Your task to perform on an android device: Find coffee shops on Maps Image 0: 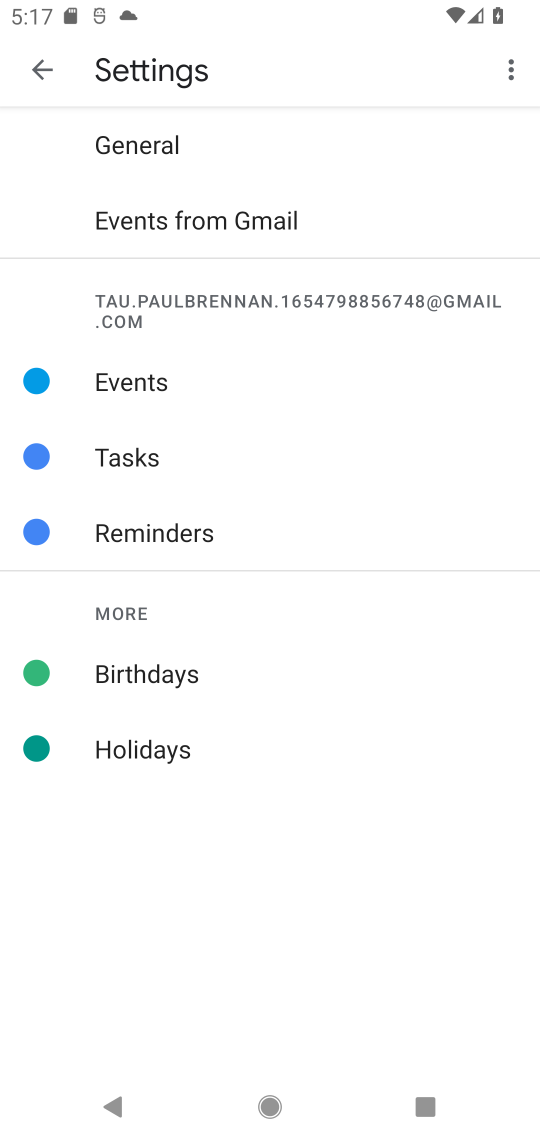
Step 0: press home button
Your task to perform on an android device: Find coffee shops on Maps Image 1: 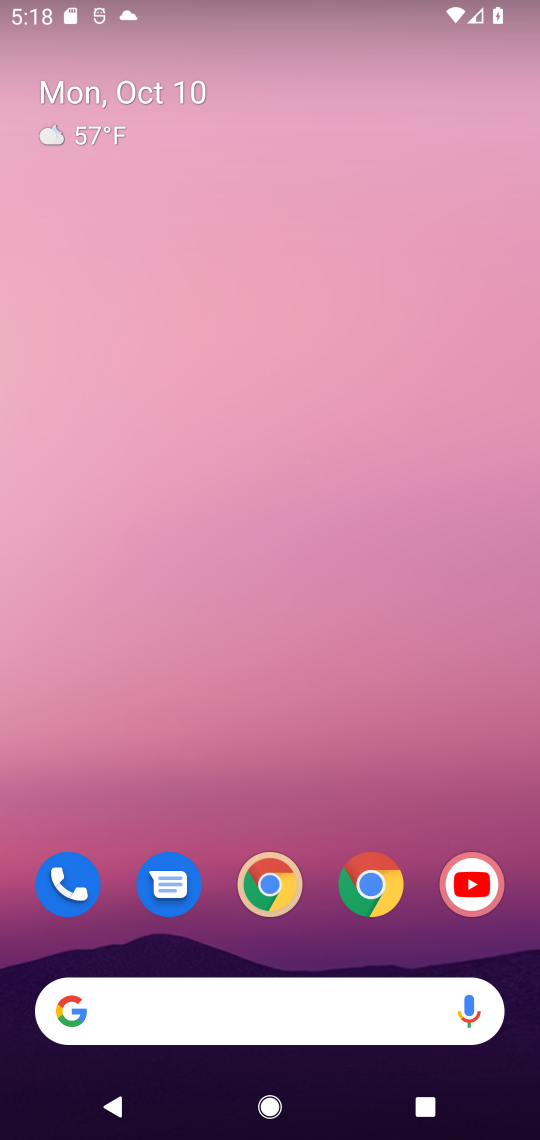
Step 1: drag from (422, 924) to (408, 101)
Your task to perform on an android device: Find coffee shops on Maps Image 2: 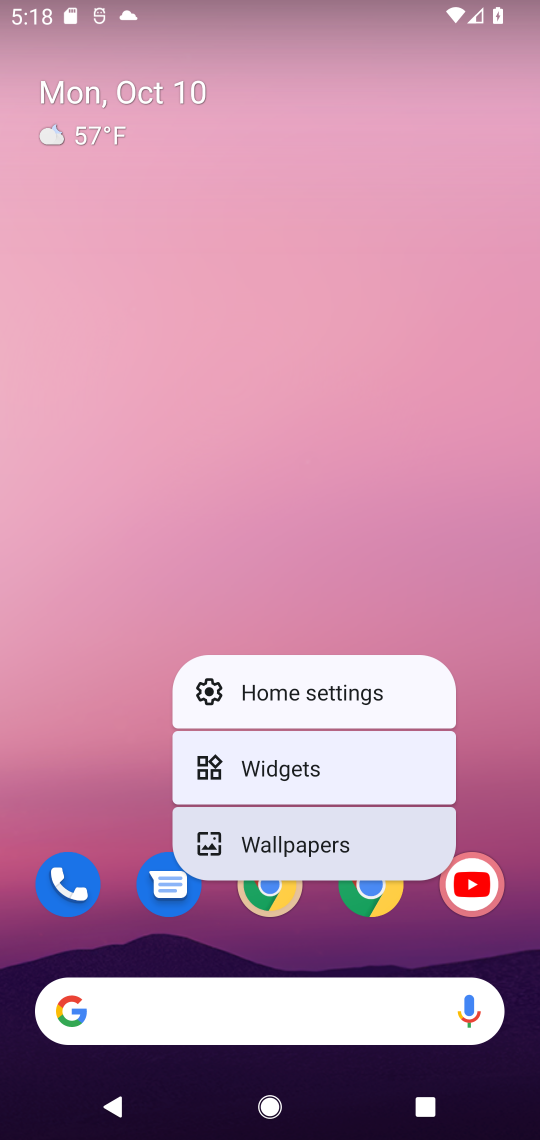
Step 2: drag from (528, 782) to (489, 156)
Your task to perform on an android device: Find coffee shops on Maps Image 3: 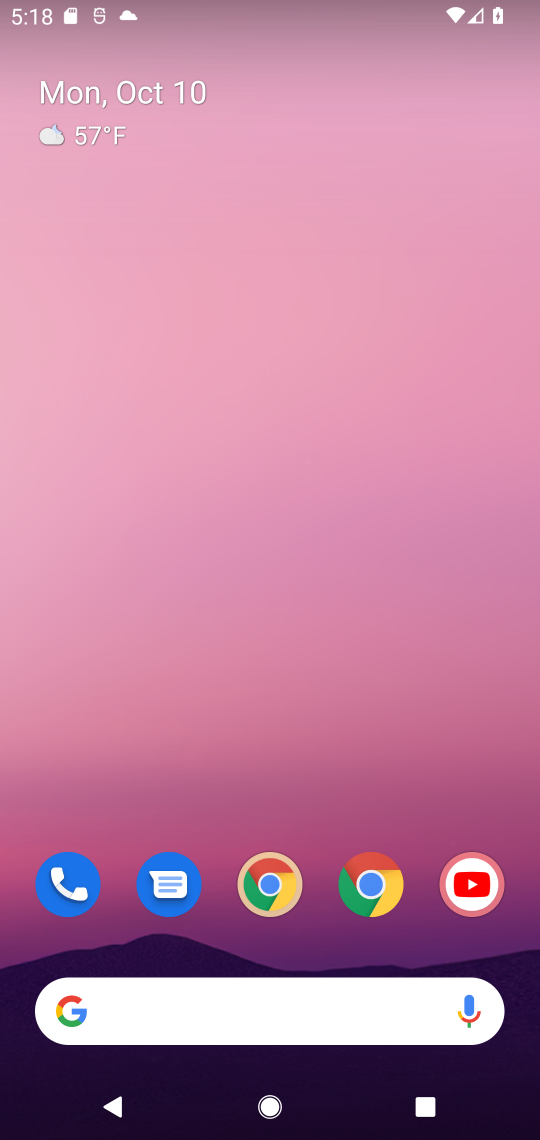
Step 3: drag from (493, 786) to (432, 16)
Your task to perform on an android device: Find coffee shops on Maps Image 4: 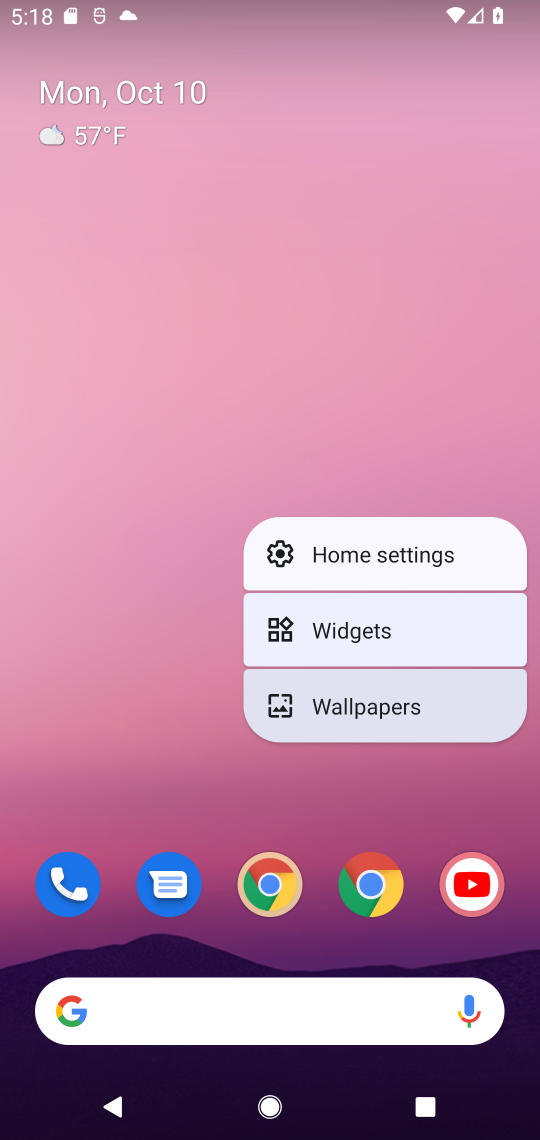
Step 4: click (38, 564)
Your task to perform on an android device: Find coffee shops on Maps Image 5: 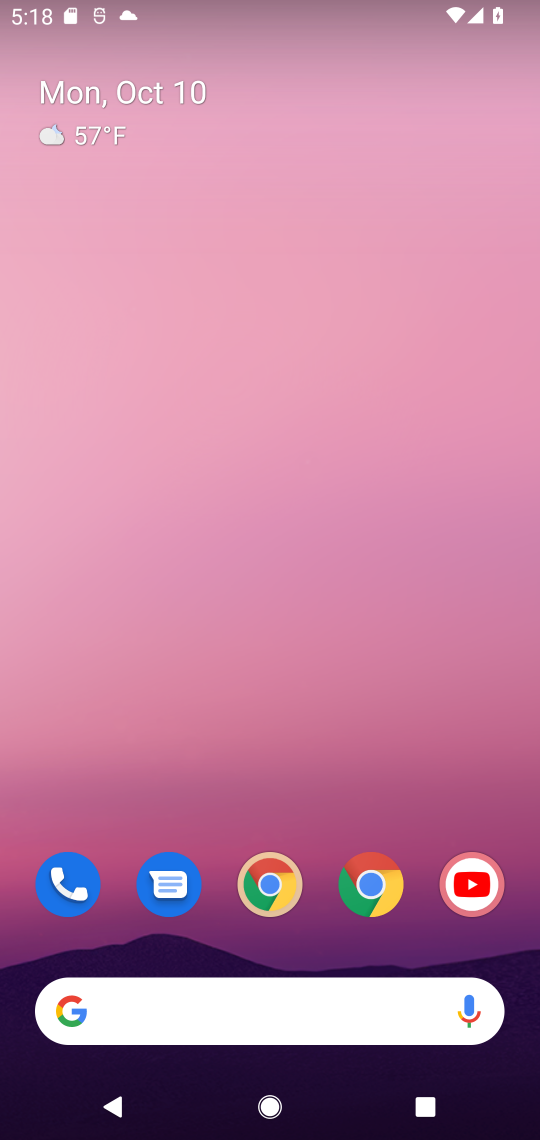
Step 5: click (510, 818)
Your task to perform on an android device: Find coffee shops on Maps Image 6: 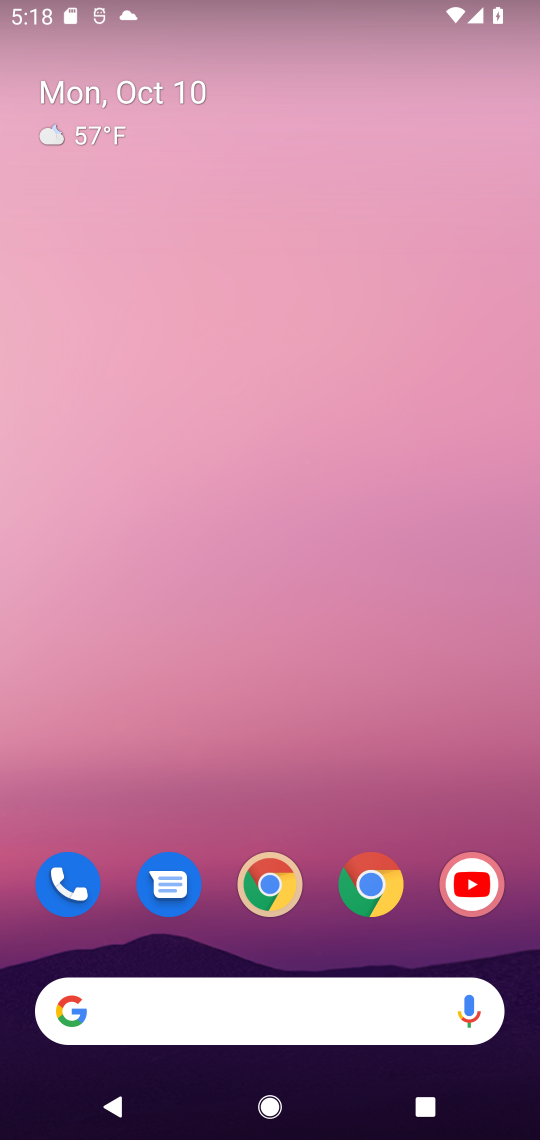
Step 6: drag from (510, 818) to (488, 101)
Your task to perform on an android device: Find coffee shops on Maps Image 7: 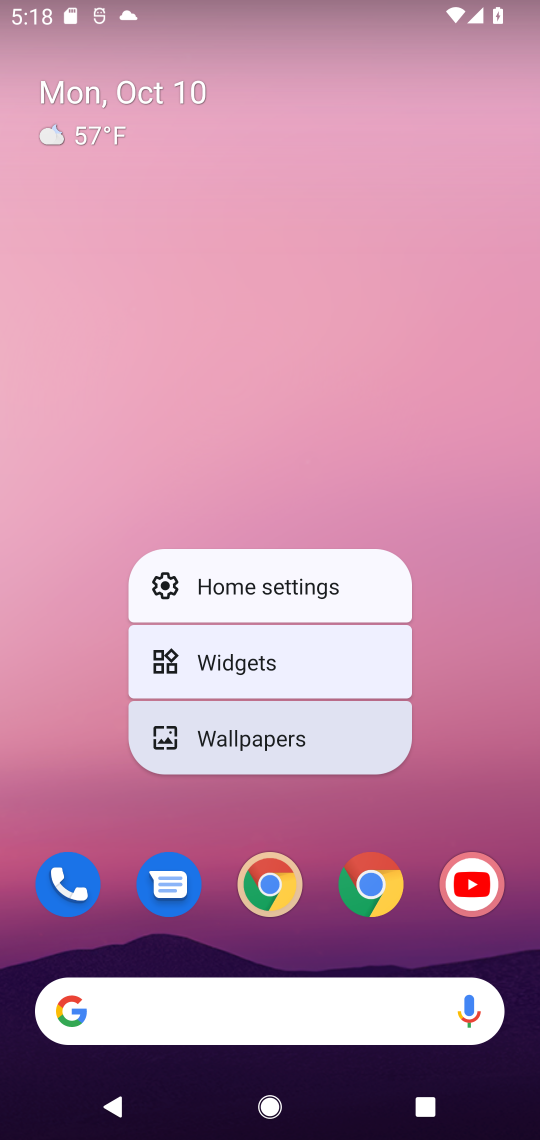
Step 7: click (486, 487)
Your task to perform on an android device: Find coffee shops on Maps Image 8: 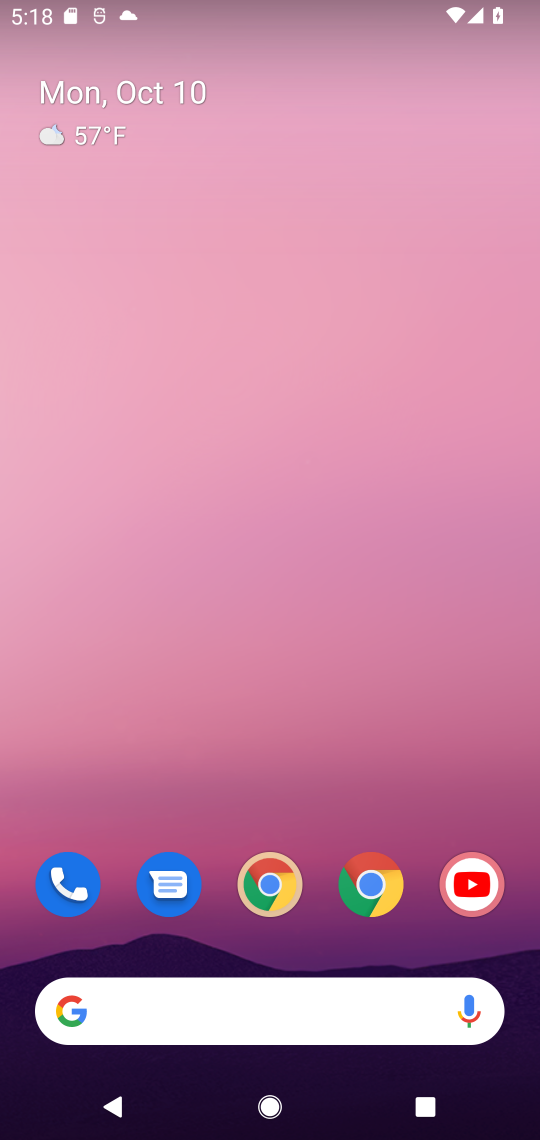
Step 8: drag from (520, 745) to (409, 9)
Your task to perform on an android device: Find coffee shops on Maps Image 9: 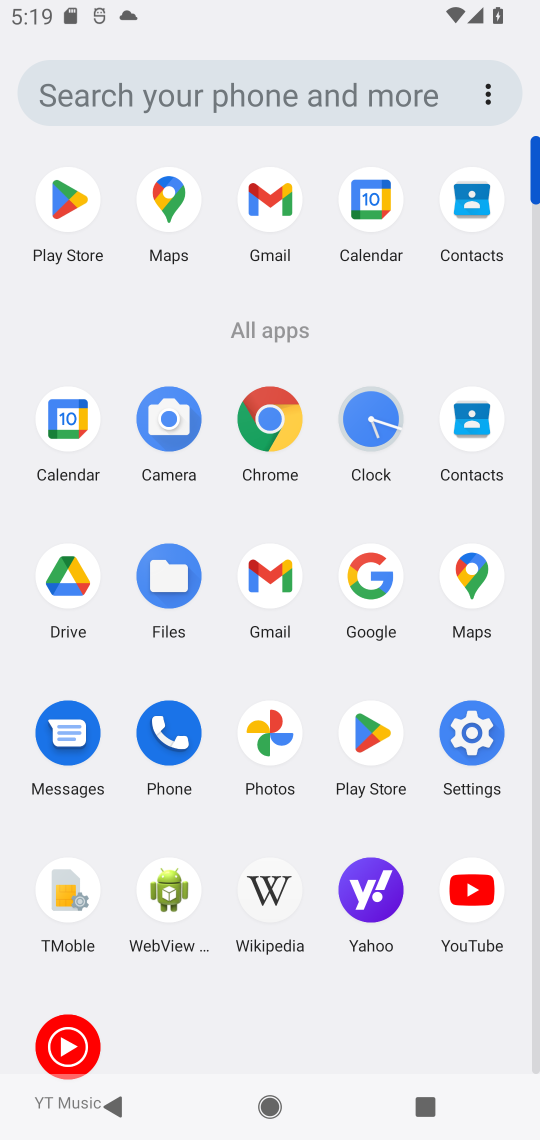
Step 9: click (156, 206)
Your task to perform on an android device: Find coffee shops on Maps Image 10: 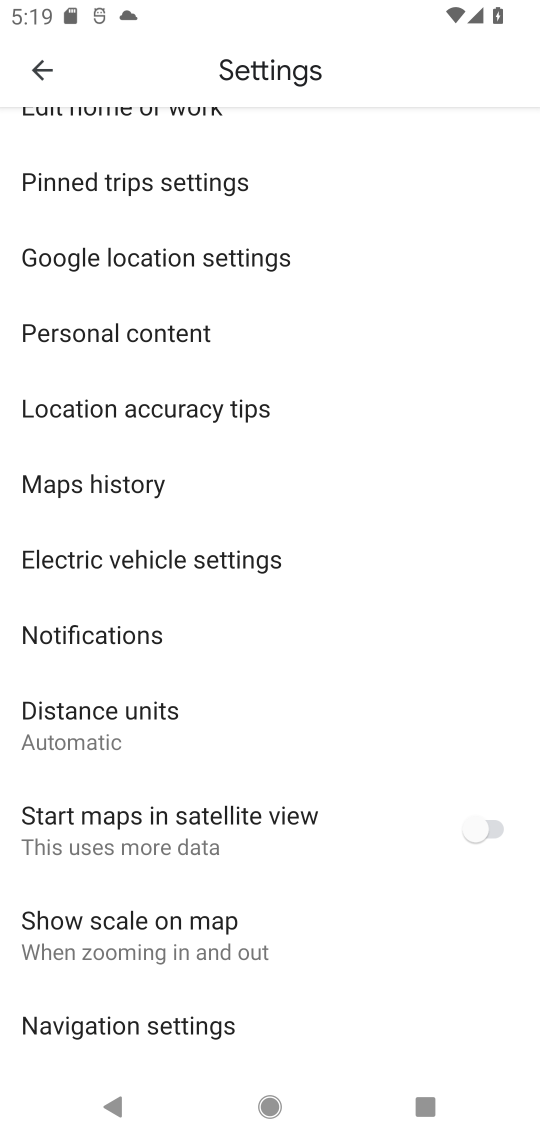
Step 10: click (27, 78)
Your task to perform on an android device: Find coffee shops on Maps Image 11: 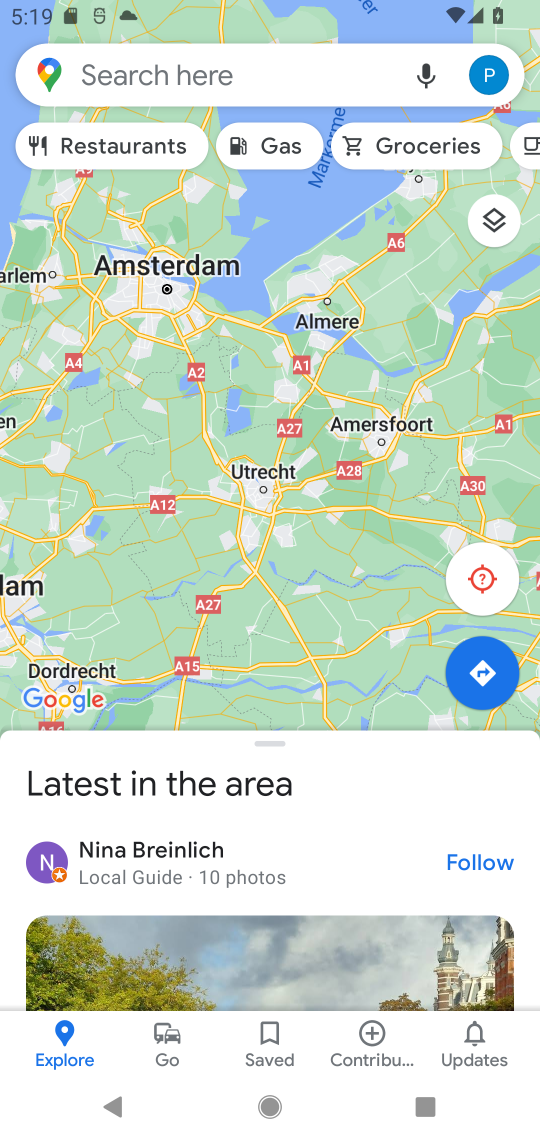
Step 11: click (94, 70)
Your task to perform on an android device: Find coffee shops on Maps Image 12: 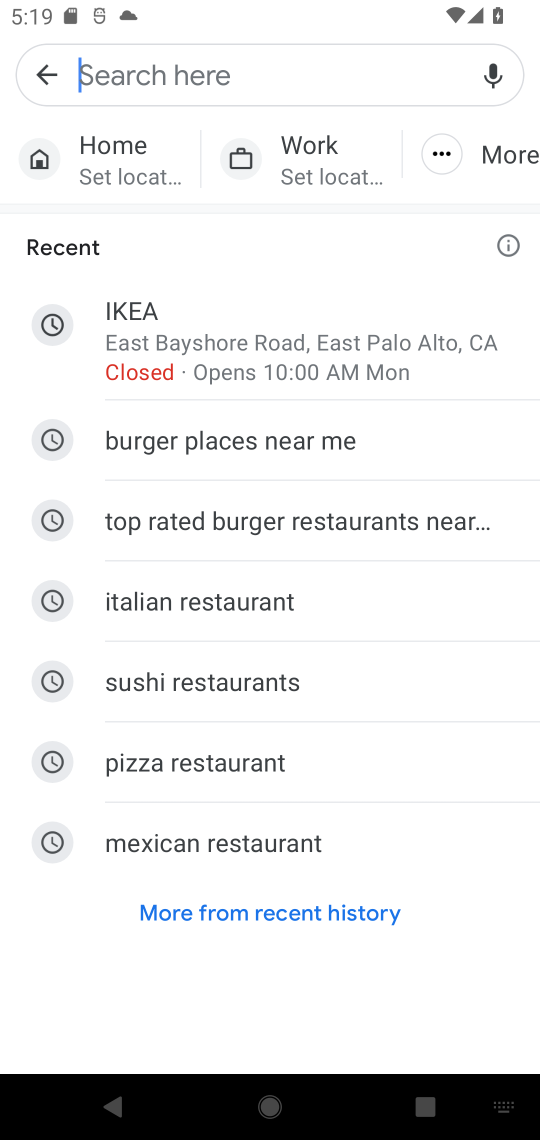
Step 12: type "coffee shops"
Your task to perform on an android device: Find coffee shops on Maps Image 13: 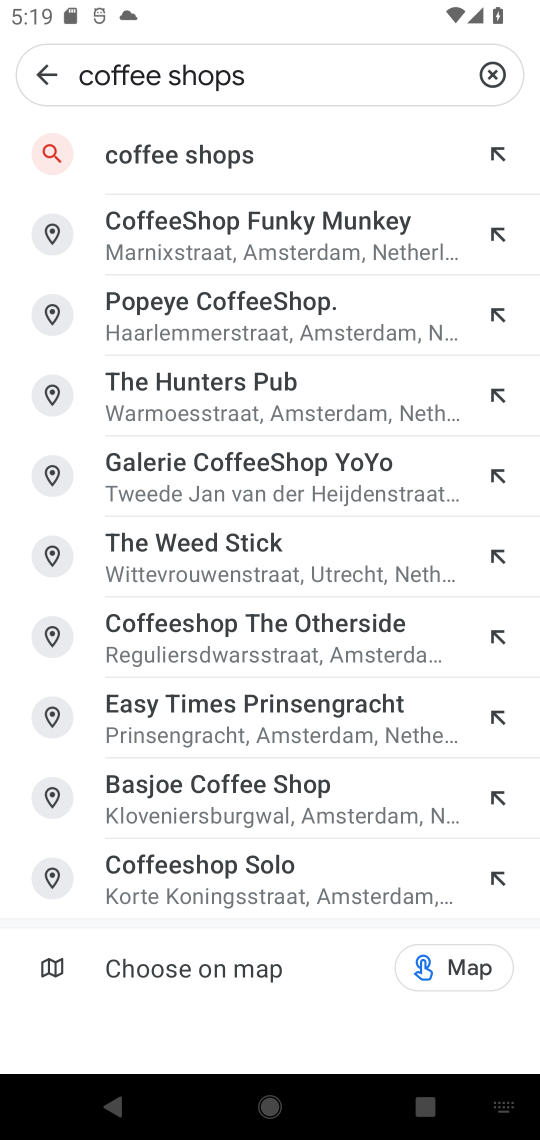
Step 13: click (202, 156)
Your task to perform on an android device: Find coffee shops on Maps Image 14: 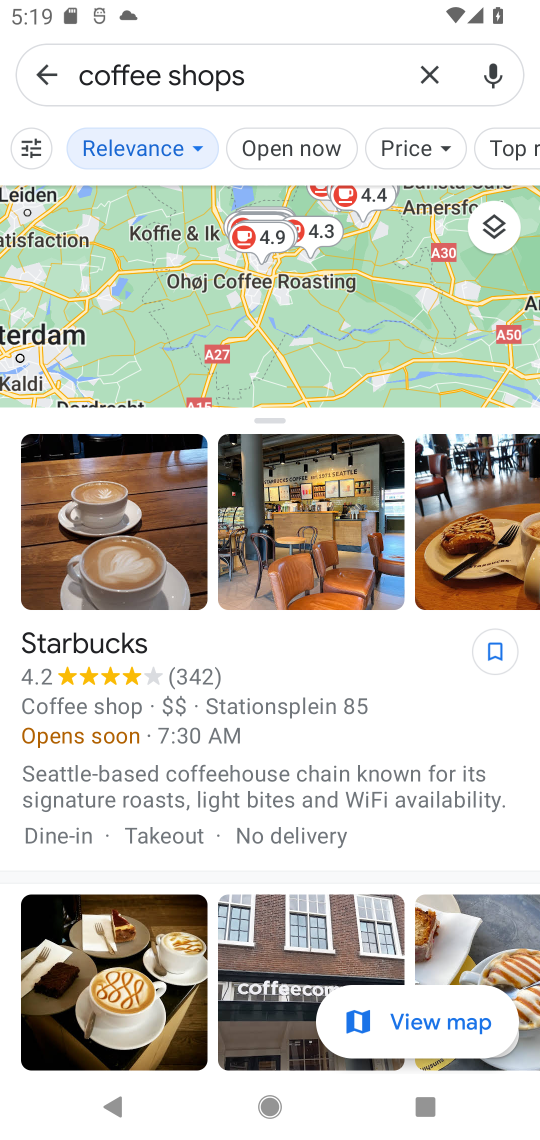
Step 14: task complete